Your task to perform on an android device: change text size in settings app Image 0: 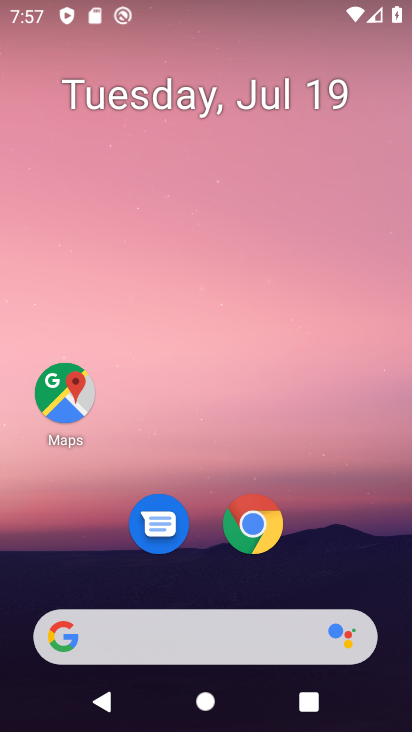
Step 0: drag from (323, 537) to (302, 33)
Your task to perform on an android device: change text size in settings app Image 1: 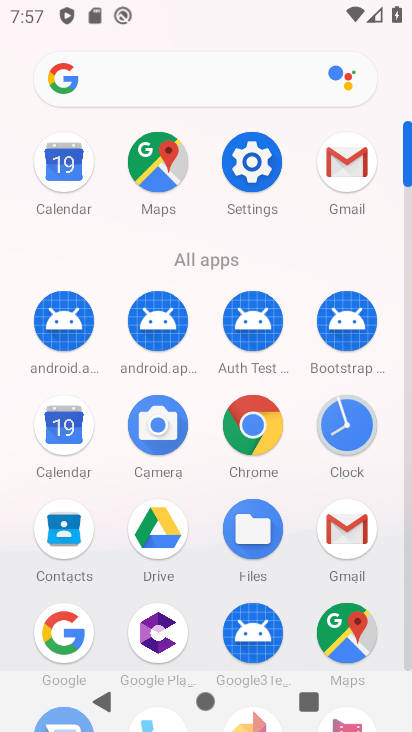
Step 1: click (267, 171)
Your task to perform on an android device: change text size in settings app Image 2: 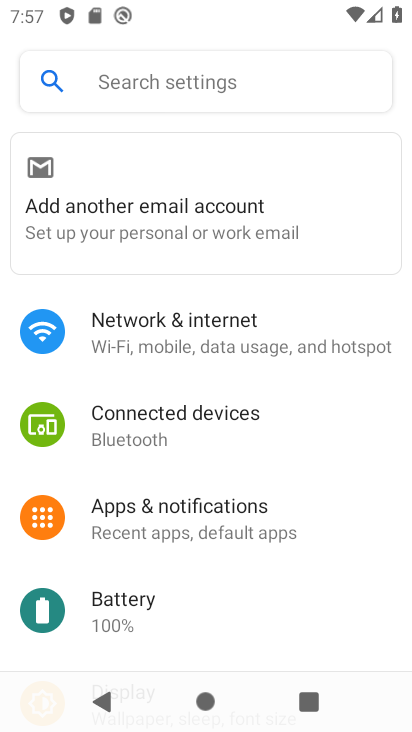
Step 2: drag from (192, 576) to (246, 292)
Your task to perform on an android device: change text size in settings app Image 3: 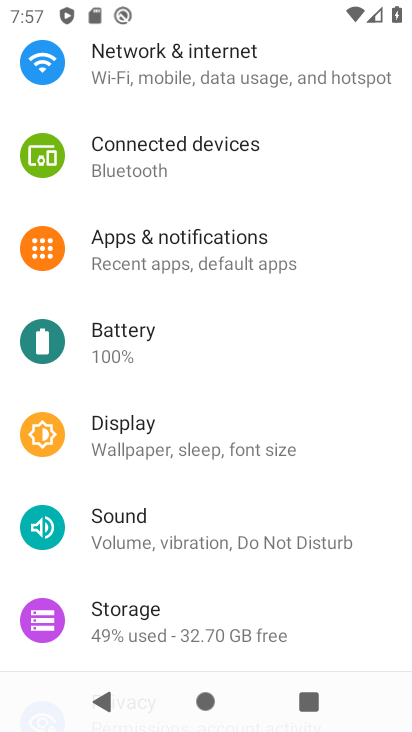
Step 3: click (185, 429)
Your task to perform on an android device: change text size in settings app Image 4: 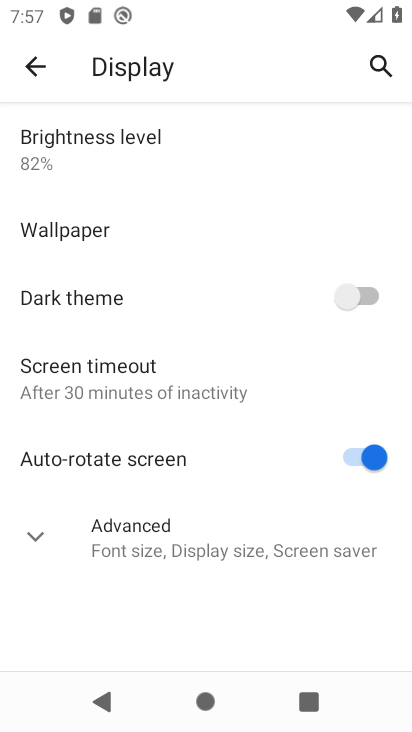
Step 4: click (36, 530)
Your task to perform on an android device: change text size in settings app Image 5: 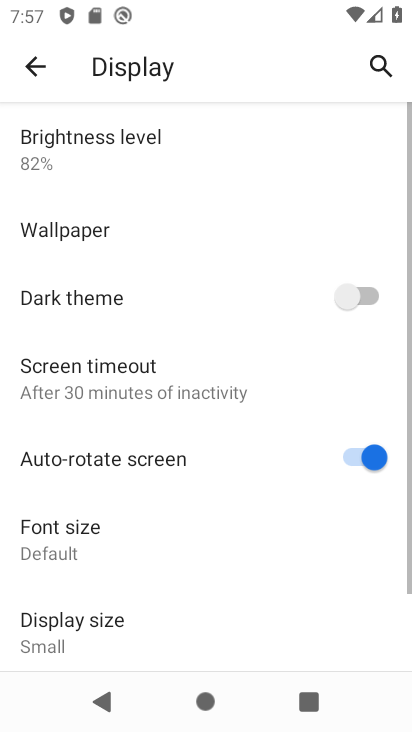
Step 5: drag from (196, 446) to (238, 176)
Your task to perform on an android device: change text size in settings app Image 6: 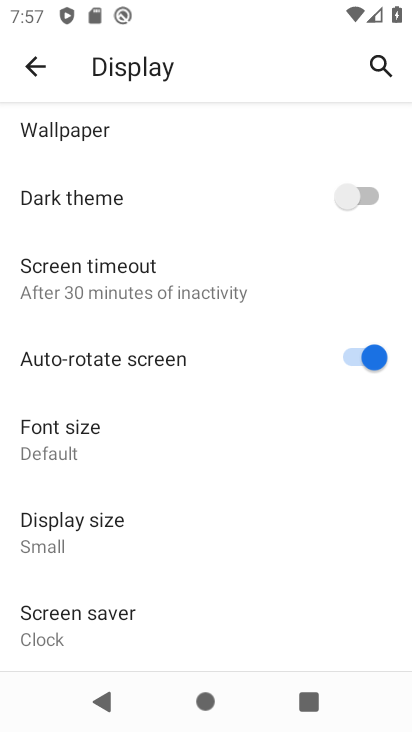
Step 6: click (65, 442)
Your task to perform on an android device: change text size in settings app Image 7: 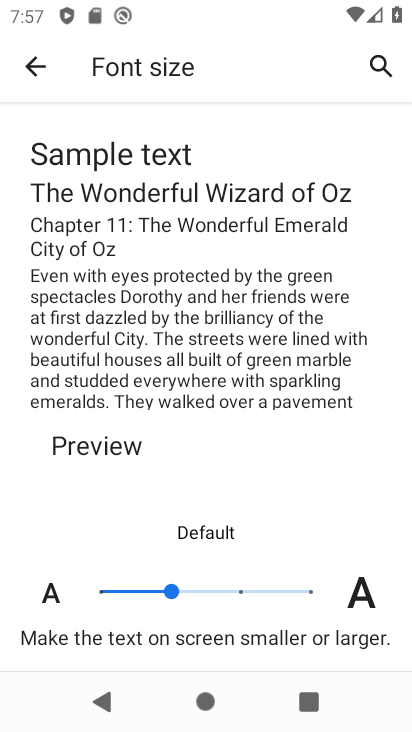
Step 7: click (107, 583)
Your task to perform on an android device: change text size in settings app Image 8: 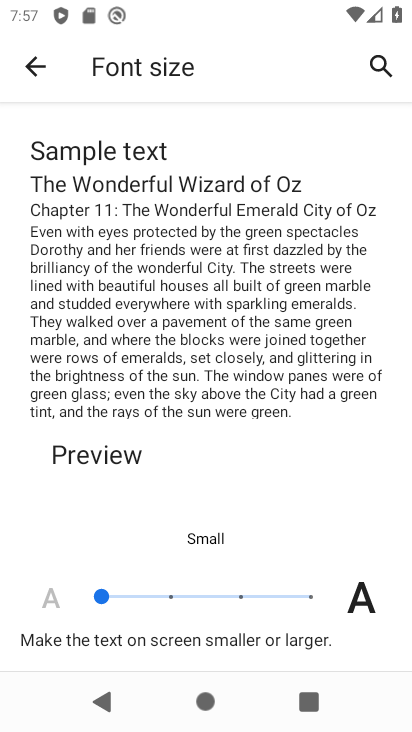
Step 8: click (43, 66)
Your task to perform on an android device: change text size in settings app Image 9: 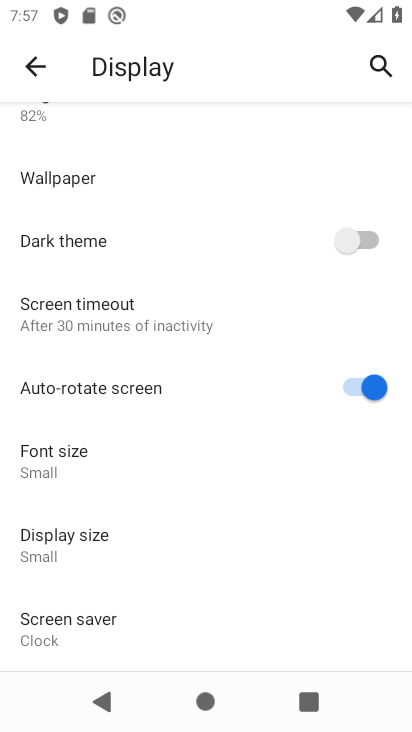
Step 9: task complete